Your task to perform on an android device: Open Google Chrome and open the bookmarks view Image 0: 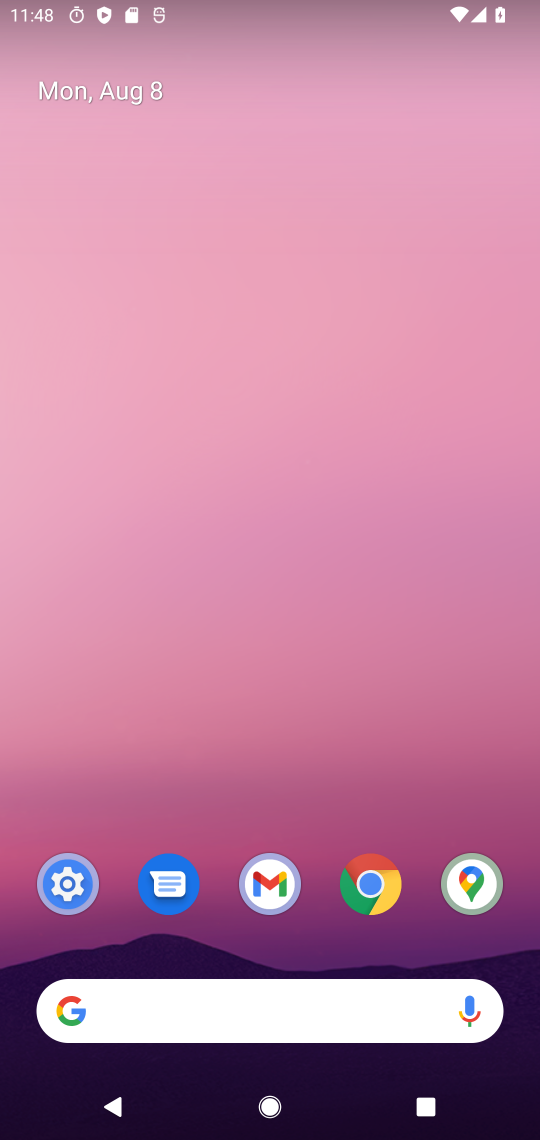
Step 0: click (372, 880)
Your task to perform on an android device: Open Google Chrome and open the bookmarks view Image 1: 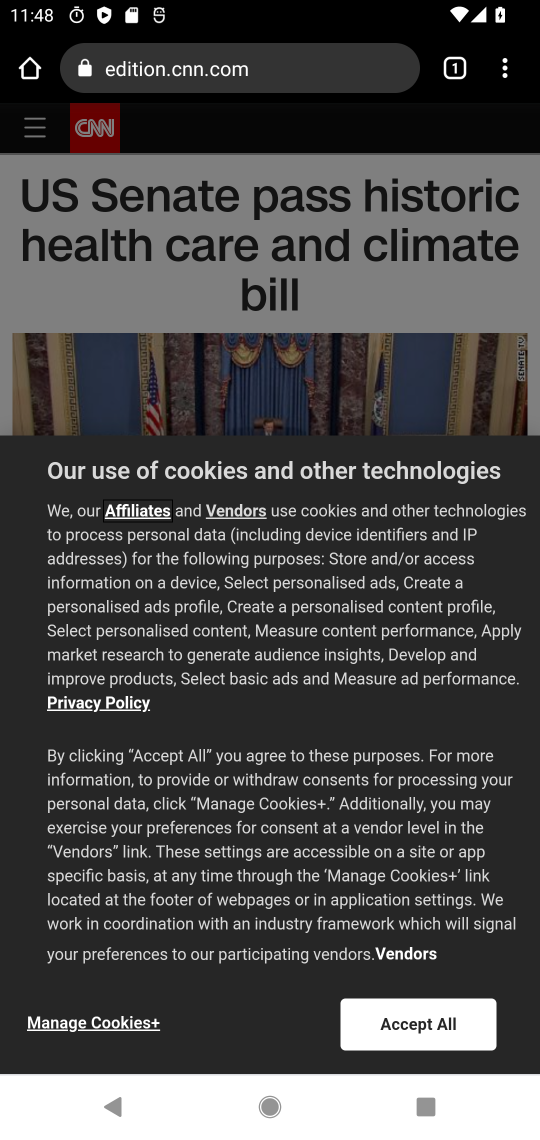
Step 1: click (511, 73)
Your task to perform on an android device: Open Google Chrome and open the bookmarks view Image 2: 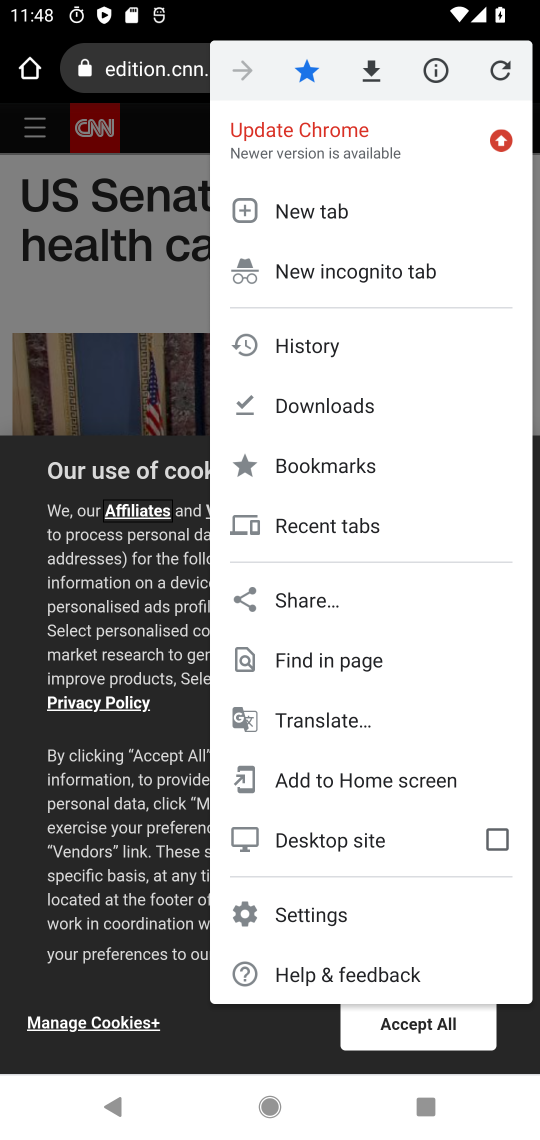
Step 2: click (352, 461)
Your task to perform on an android device: Open Google Chrome and open the bookmarks view Image 3: 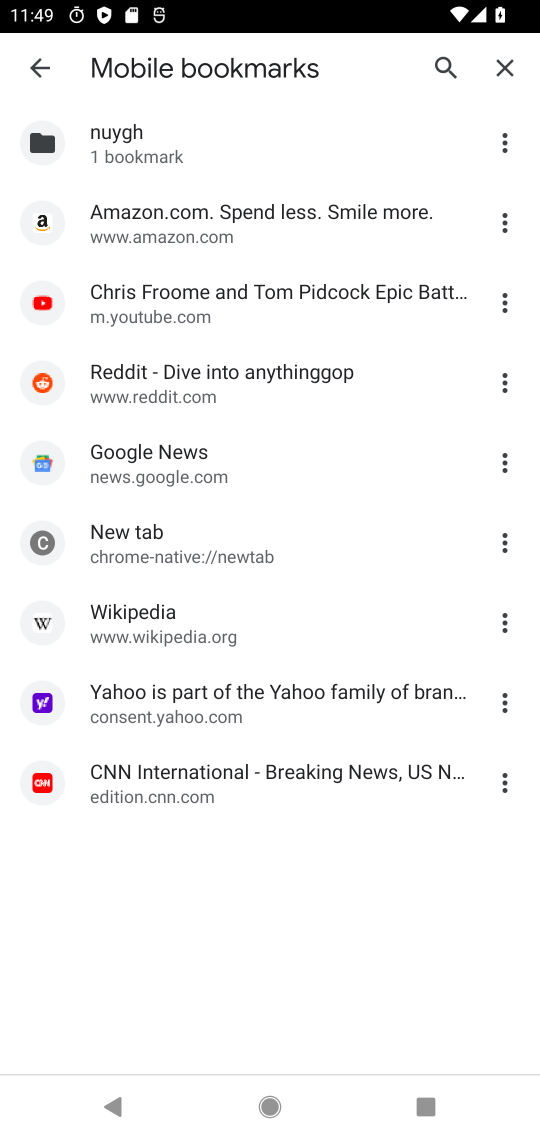
Step 3: task complete